Your task to perform on an android device: Open the Play Movies app and select the watchlist tab. Image 0: 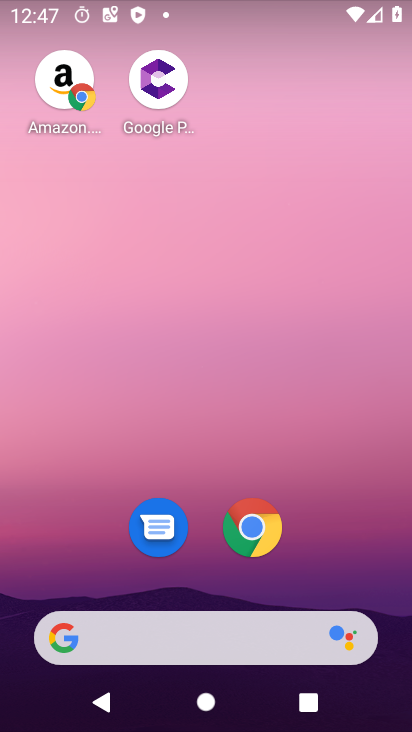
Step 0: press home button
Your task to perform on an android device: Open the Play Movies app and select the watchlist tab. Image 1: 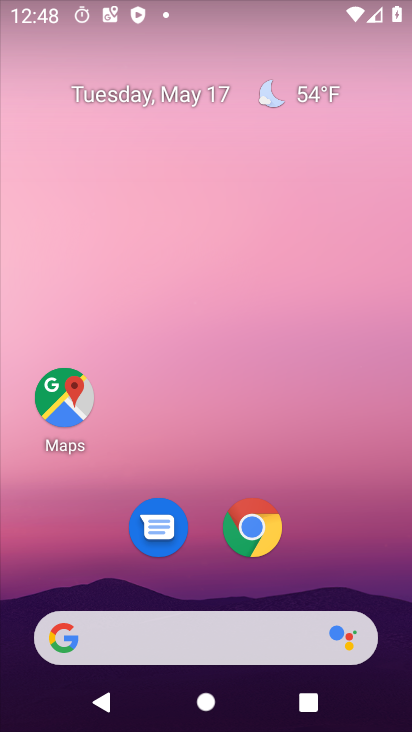
Step 1: drag from (203, 666) to (219, 252)
Your task to perform on an android device: Open the Play Movies app and select the watchlist tab. Image 2: 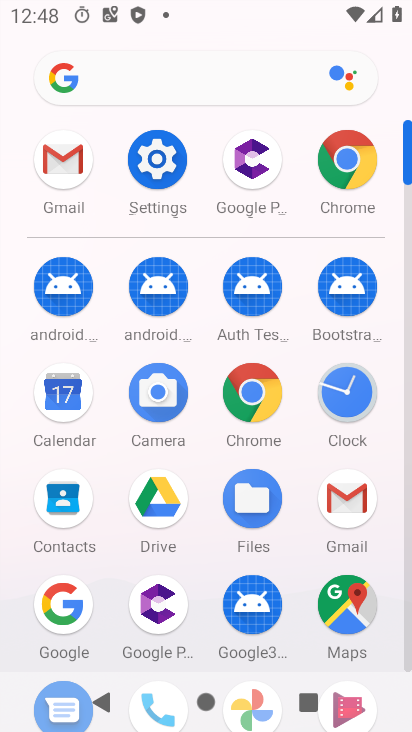
Step 2: drag from (207, 479) to (254, 285)
Your task to perform on an android device: Open the Play Movies app and select the watchlist tab. Image 3: 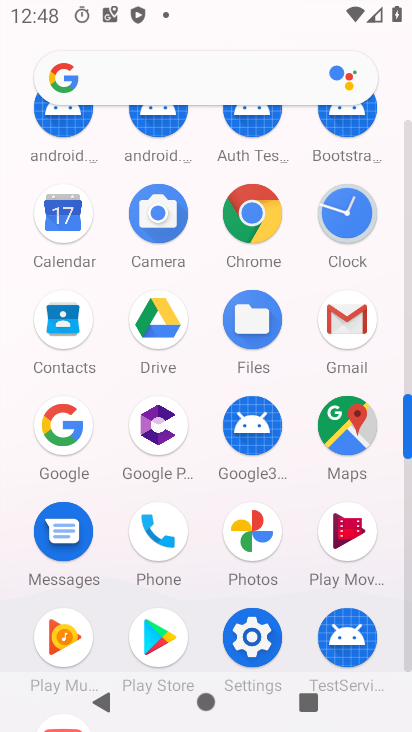
Step 3: click (330, 532)
Your task to perform on an android device: Open the Play Movies app and select the watchlist tab. Image 4: 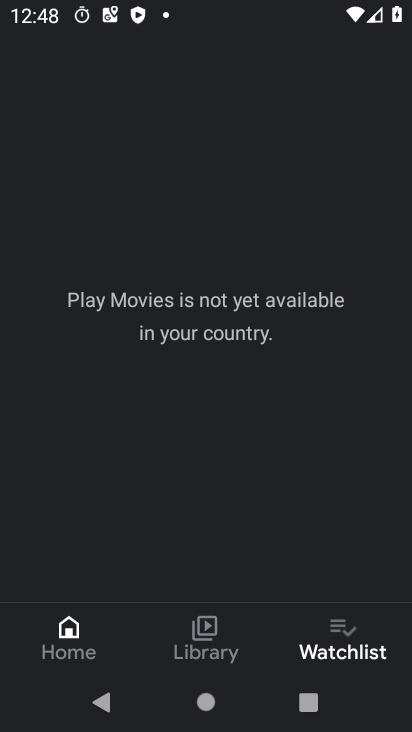
Step 4: click (349, 659)
Your task to perform on an android device: Open the Play Movies app and select the watchlist tab. Image 5: 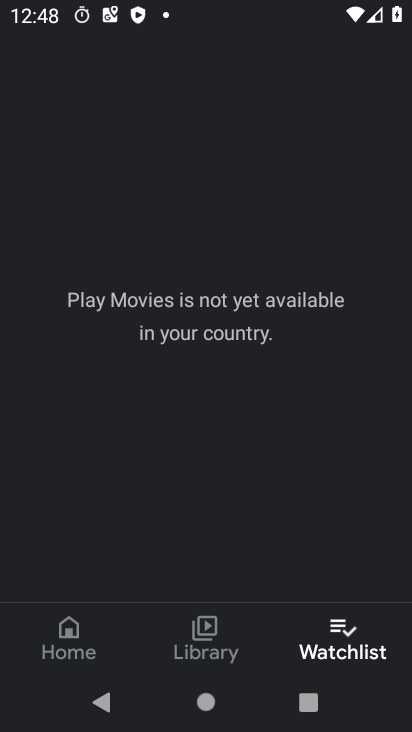
Step 5: task complete